Your task to perform on an android device: make emails show in primary in the gmail app Image 0: 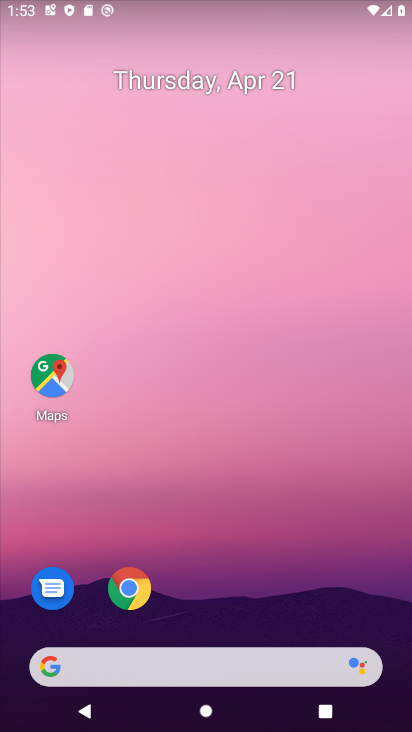
Step 0: drag from (205, 600) to (219, 256)
Your task to perform on an android device: make emails show in primary in the gmail app Image 1: 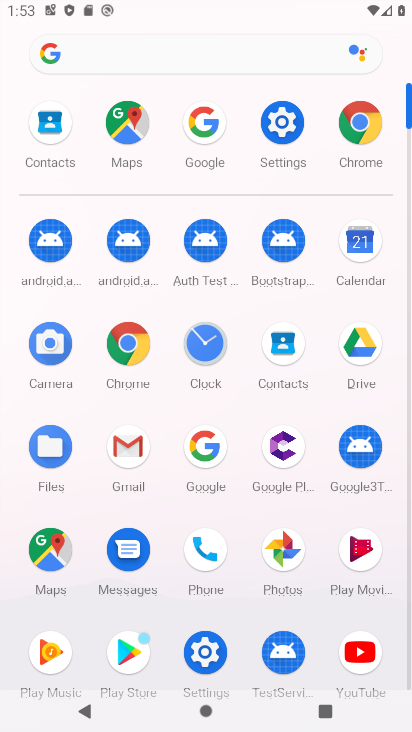
Step 1: click (127, 453)
Your task to perform on an android device: make emails show in primary in the gmail app Image 2: 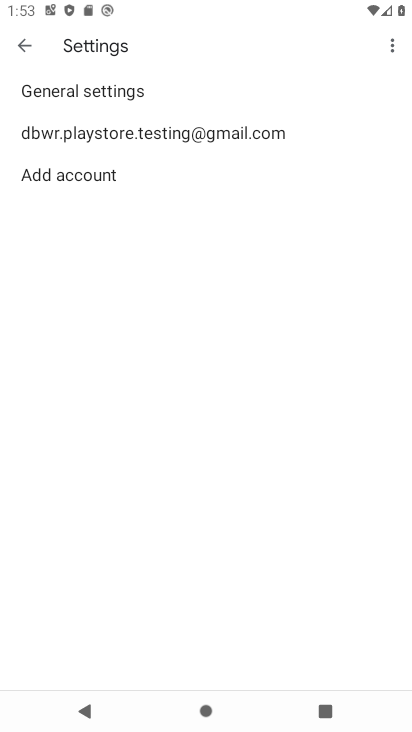
Step 2: task complete